Your task to perform on an android device: Set the phone to "Do not disturb". Image 0: 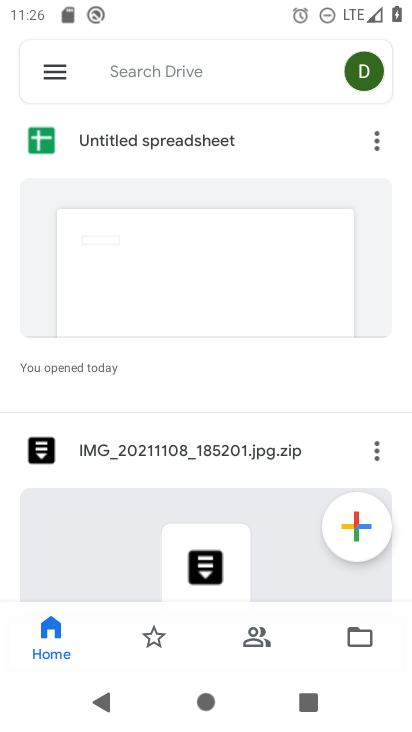
Step 0: press home button
Your task to perform on an android device: Set the phone to "Do not disturb". Image 1: 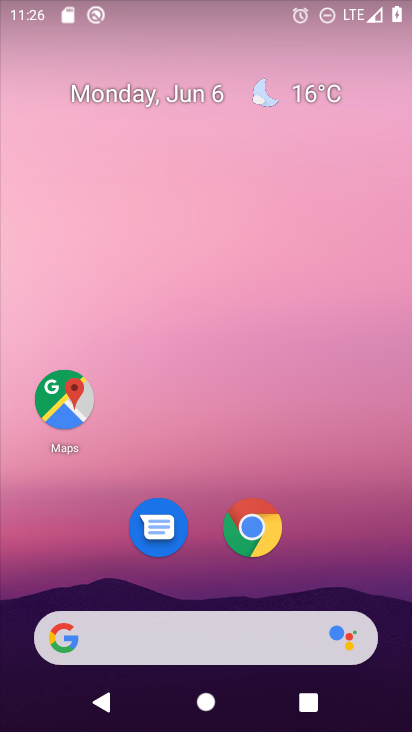
Step 1: drag from (350, 555) to (363, 165)
Your task to perform on an android device: Set the phone to "Do not disturb". Image 2: 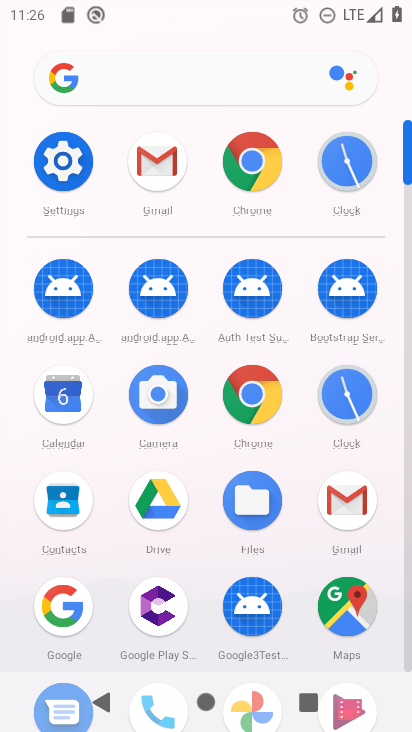
Step 2: click (81, 177)
Your task to perform on an android device: Set the phone to "Do not disturb". Image 3: 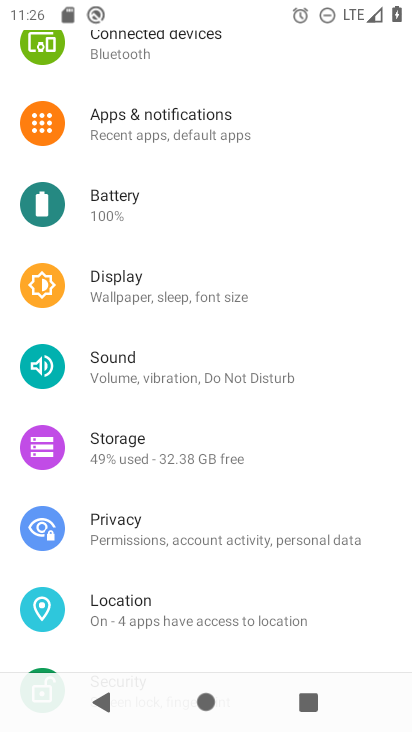
Step 3: drag from (311, 175) to (318, 368)
Your task to perform on an android device: Set the phone to "Do not disturb". Image 4: 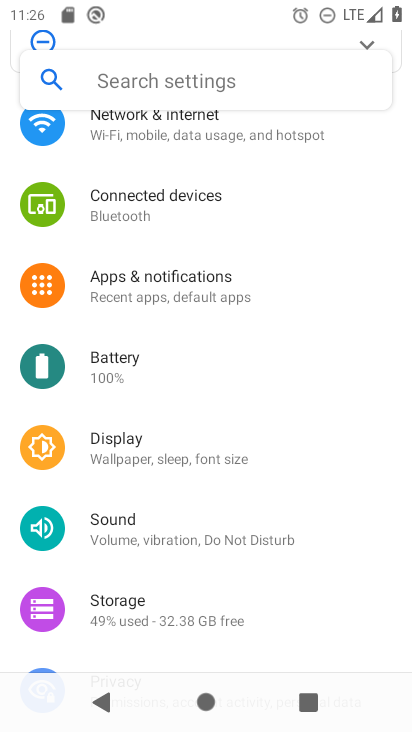
Step 4: drag from (335, 243) to (337, 420)
Your task to perform on an android device: Set the phone to "Do not disturb". Image 5: 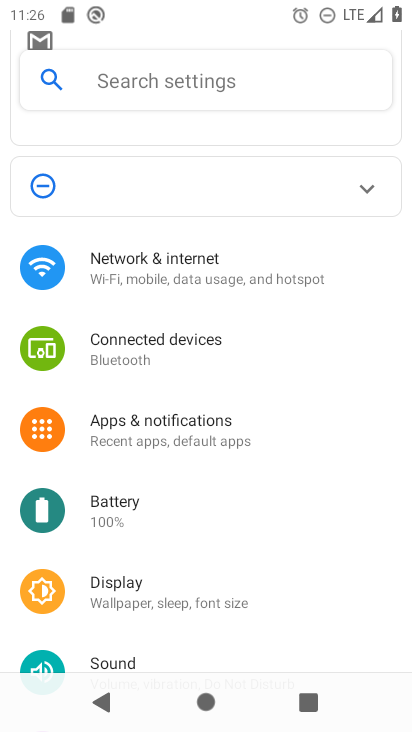
Step 5: drag from (332, 512) to (330, 334)
Your task to perform on an android device: Set the phone to "Do not disturb". Image 6: 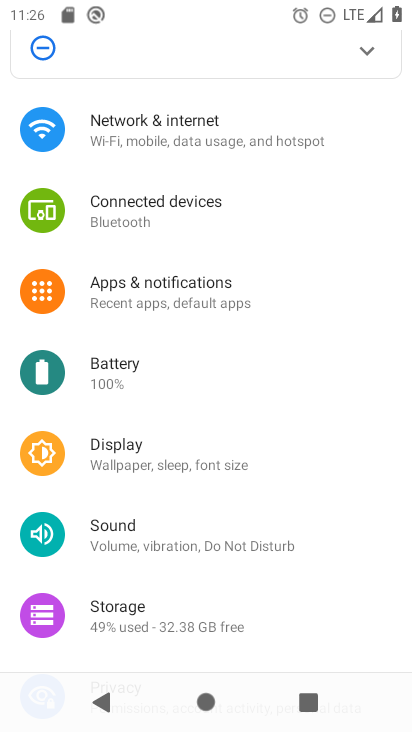
Step 6: drag from (324, 572) to (342, 369)
Your task to perform on an android device: Set the phone to "Do not disturb". Image 7: 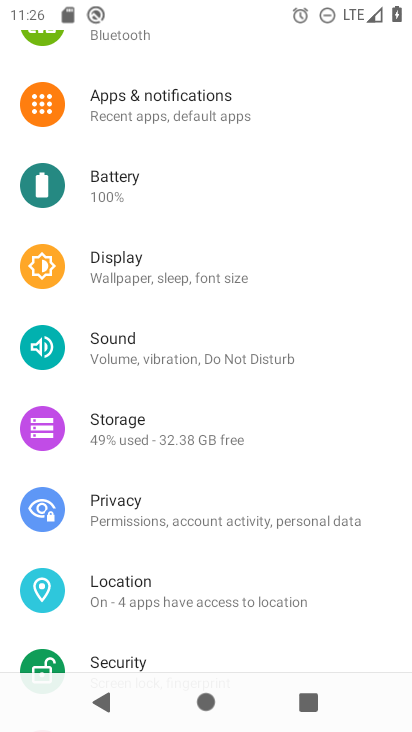
Step 7: click (203, 340)
Your task to perform on an android device: Set the phone to "Do not disturb". Image 8: 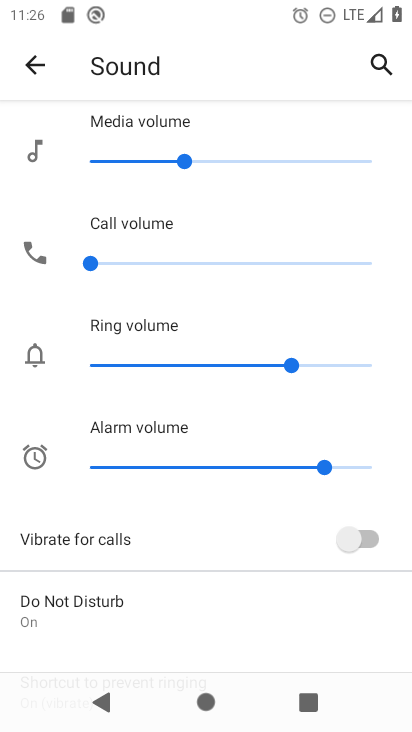
Step 8: task complete